Your task to perform on an android device: Show the shopping cart on amazon. Add usb-c to the cart on amazon Image 0: 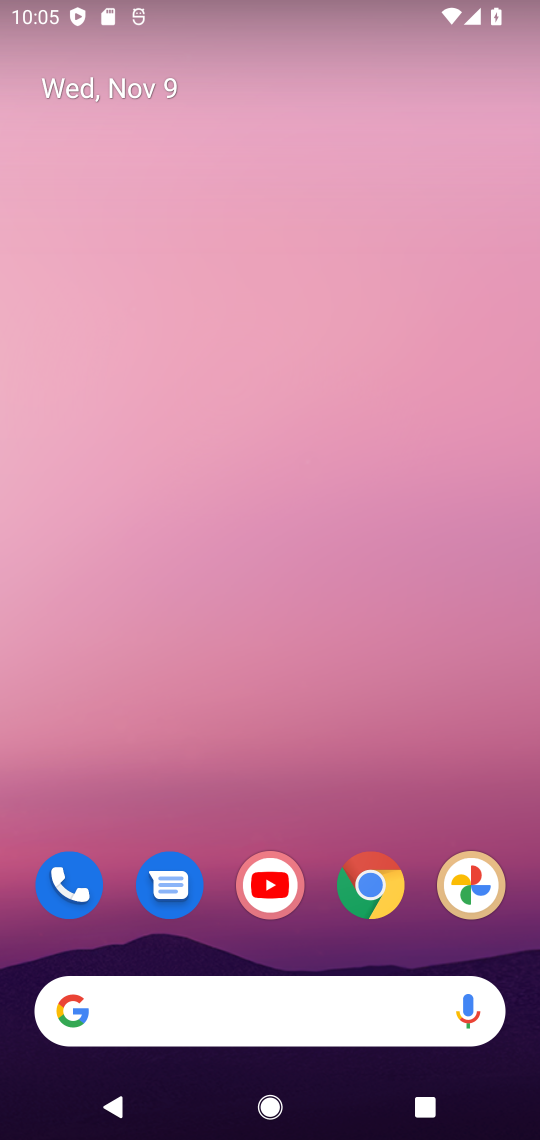
Step 0: click (369, 884)
Your task to perform on an android device: Show the shopping cart on amazon. Add usb-c to the cart on amazon Image 1: 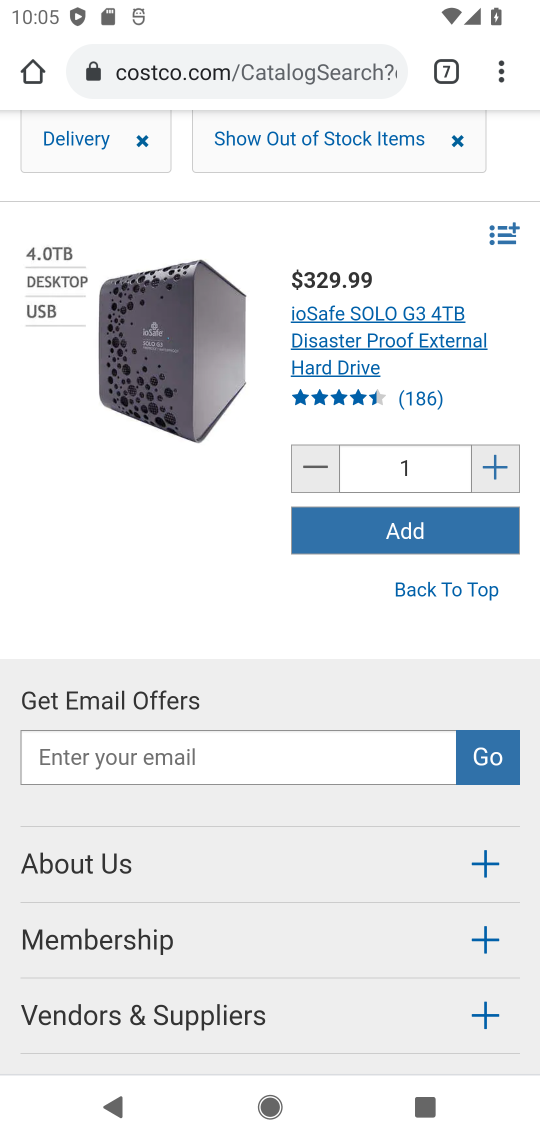
Step 1: click (446, 67)
Your task to perform on an android device: Show the shopping cart on amazon. Add usb-c to the cart on amazon Image 2: 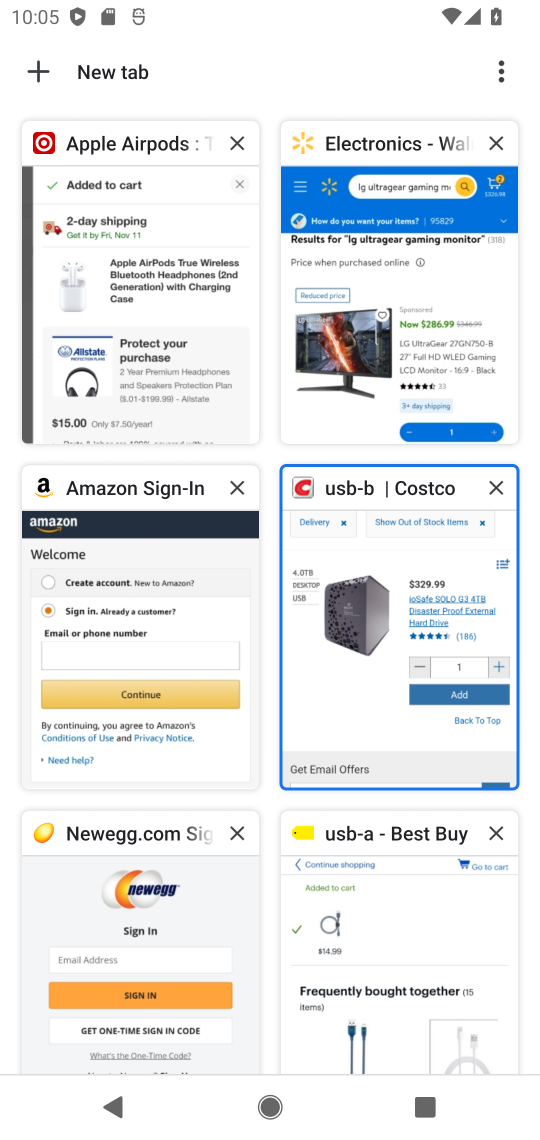
Step 2: click (168, 543)
Your task to perform on an android device: Show the shopping cart on amazon. Add usb-c to the cart on amazon Image 3: 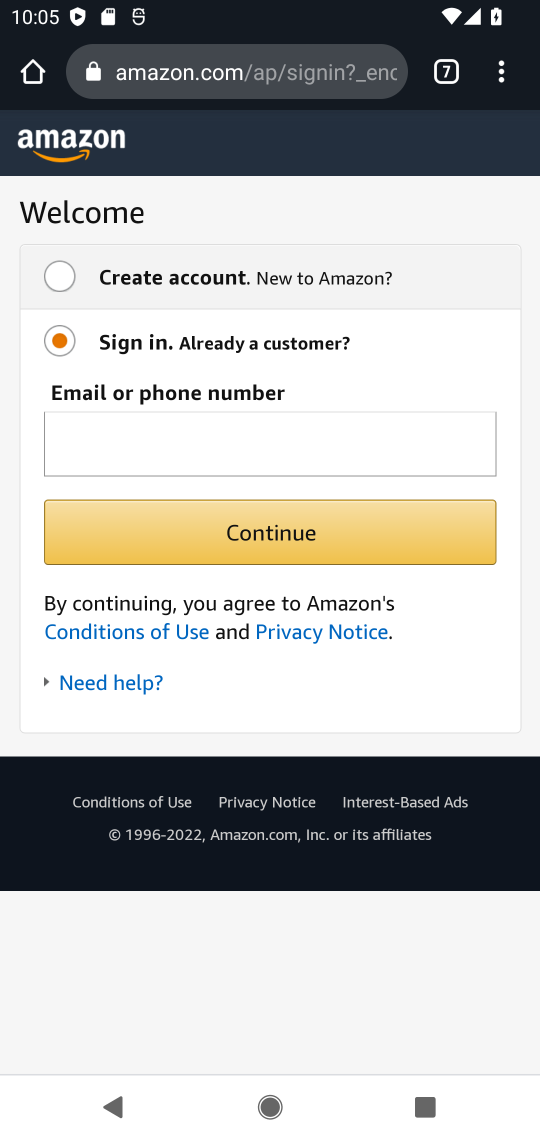
Step 3: press back button
Your task to perform on an android device: Show the shopping cart on amazon. Add usb-c to the cart on amazon Image 4: 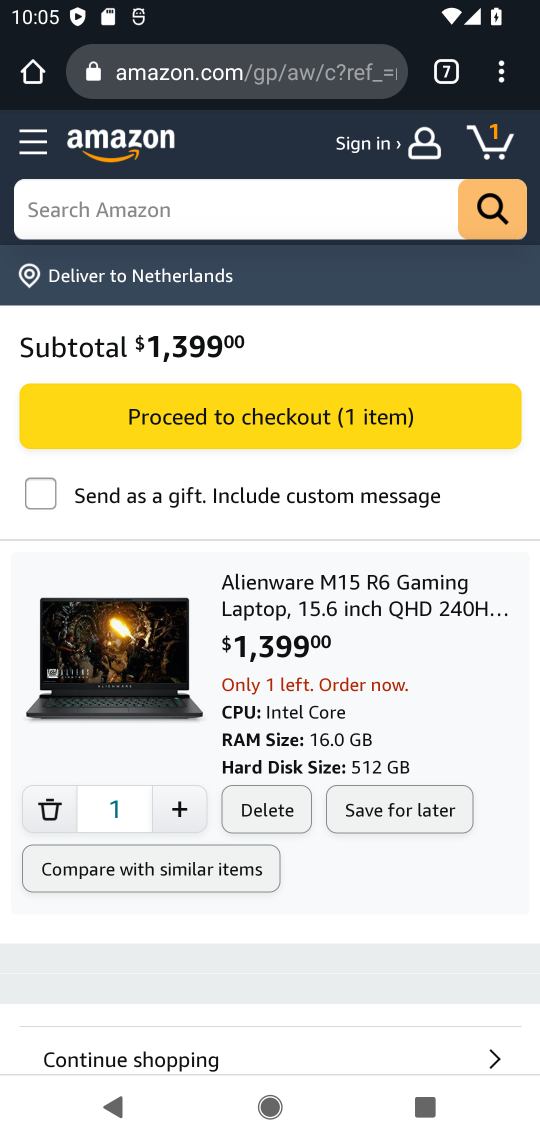
Step 4: click (315, 213)
Your task to perform on an android device: Show the shopping cart on amazon. Add usb-c to the cart on amazon Image 5: 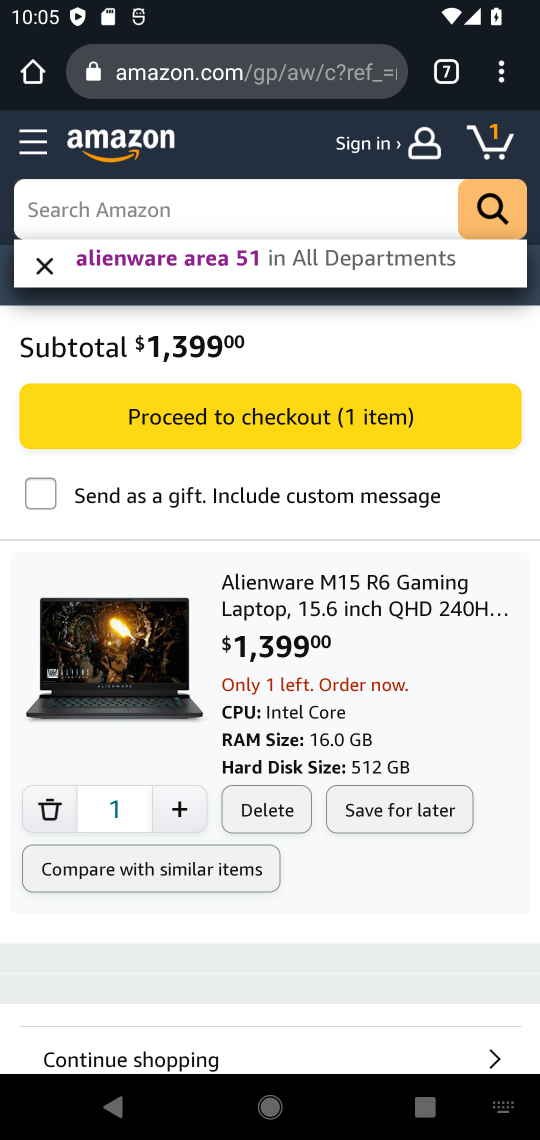
Step 5: type " usb-c"
Your task to perform on an android device: Show the shopping cart on amazon. Add usb-c to the cart on amazon Image 6: 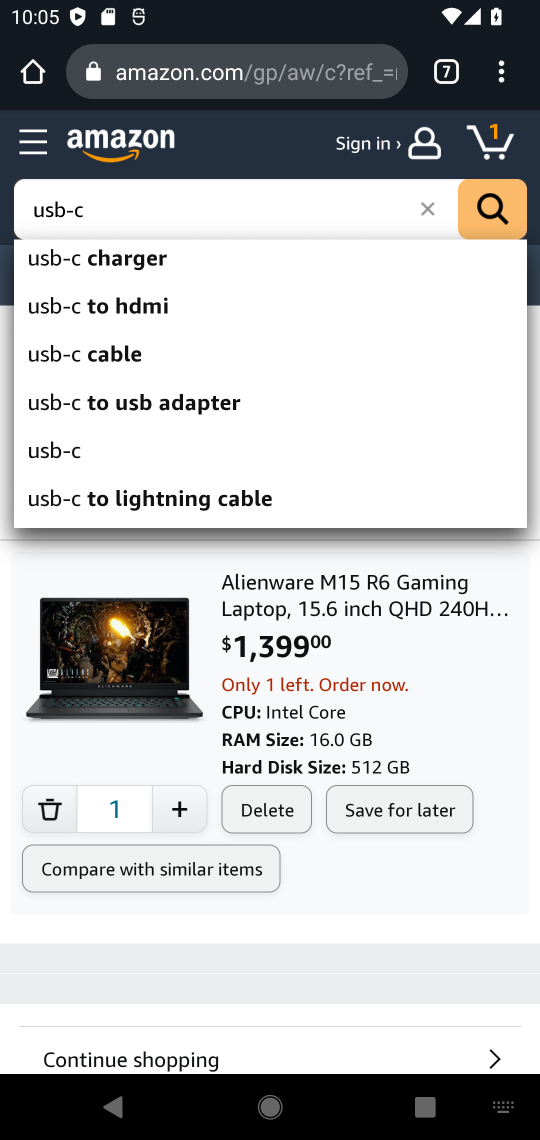
Step 6: click (109, 344)
Your task to perform on an android device: Show the shopping cart on amazon. Add usb-c to the cart on amazon Image 7: 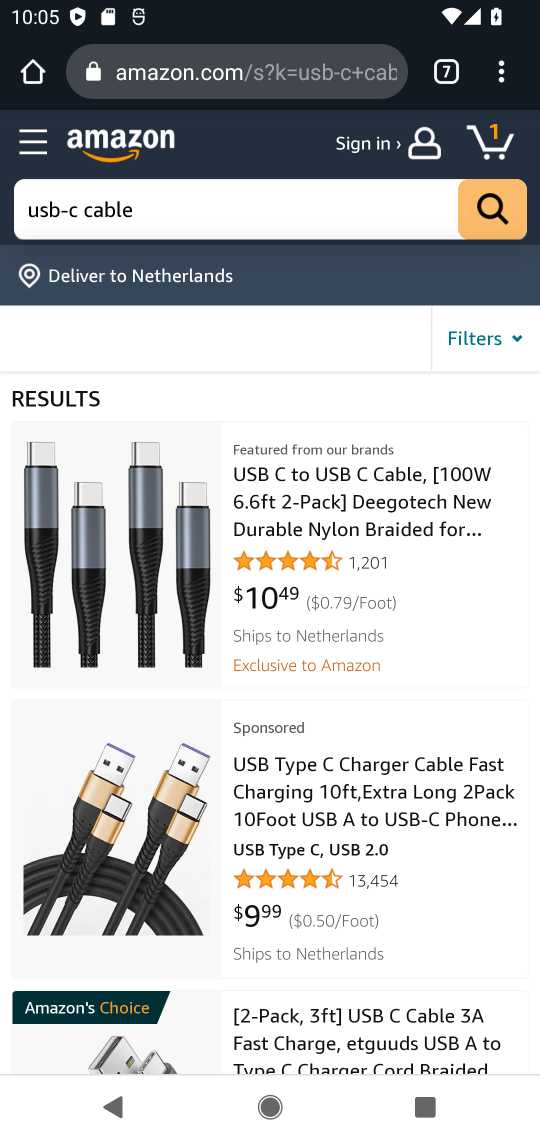
Step 7: click (327, 478)
Your task to perform on an android device: Show the shopping cart on amazon. Add usb-c to the cart on amazon Image 8: 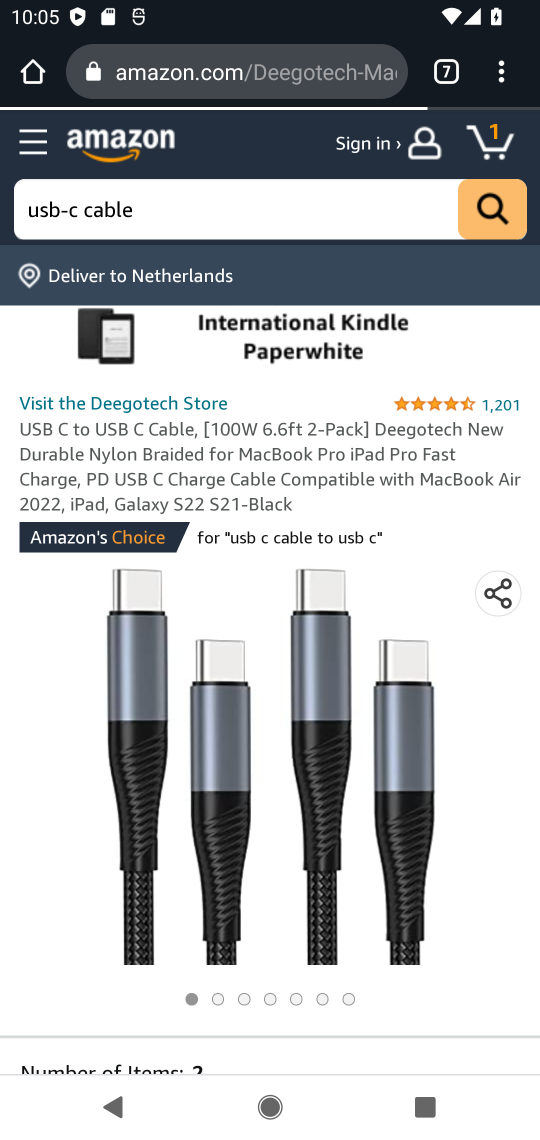
Step 8: drag from (447, 987) to (508, 315)
Your task to perform on an android device: Show the shopping cart on amazon. Add usb-c to the cart on amazon Image 9: 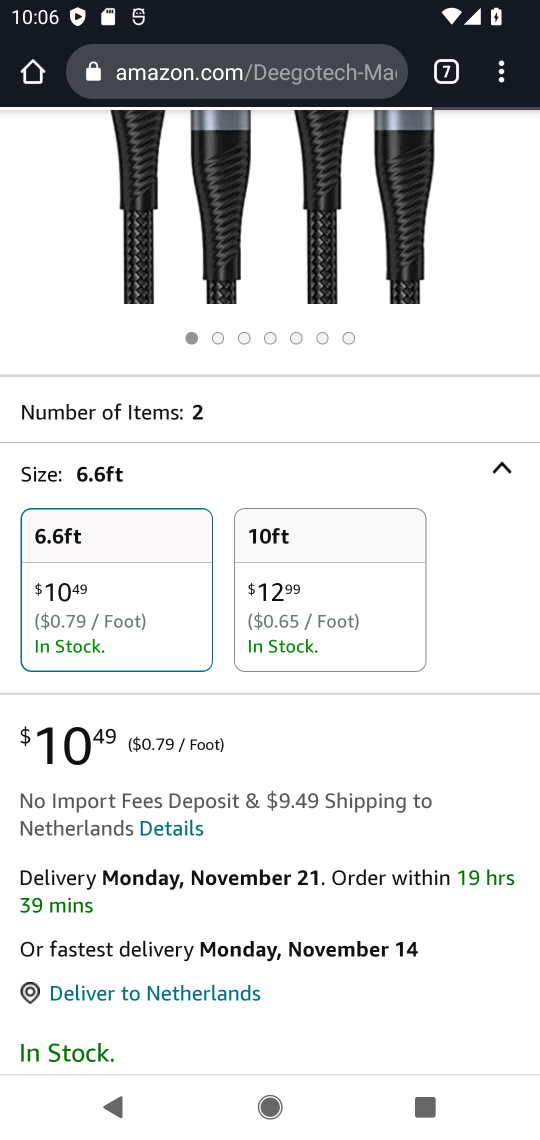
Step 9: drag from (310, 850) to (403, 304)
Your task to perform on an android device: Show the shopping cart on amazon. Add usb-c to the cart on amazon Image 10: 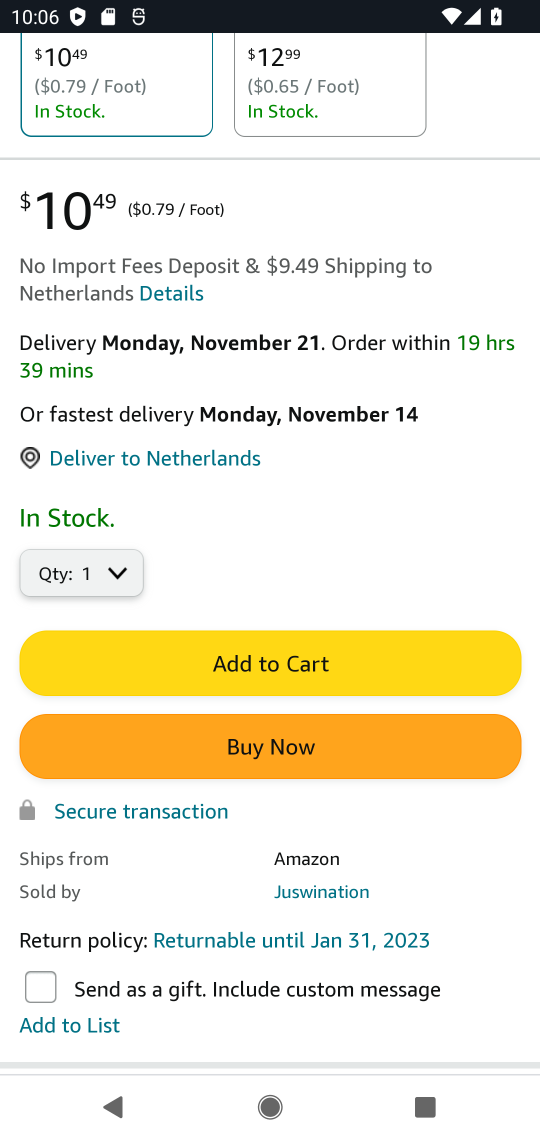
Step 10: click (290, 658)
Your task to perform on an android device: Show the shopping cart on amazon. Add usb-c to the cart on amazon Image 11: 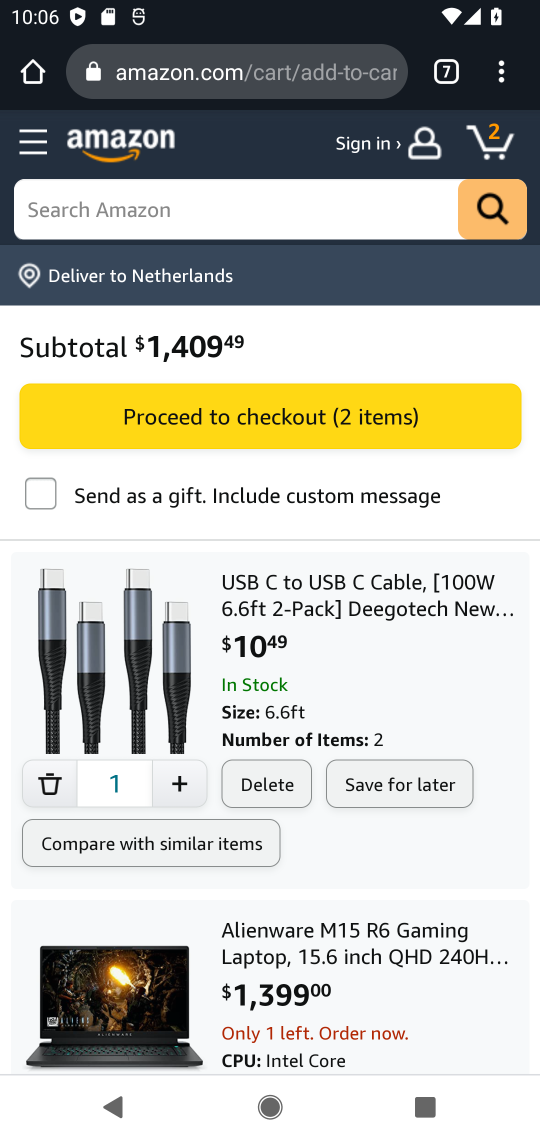
Step 11: task complete